Your task to perform on an android device: find snoozed emails in the gmail app Image 0: 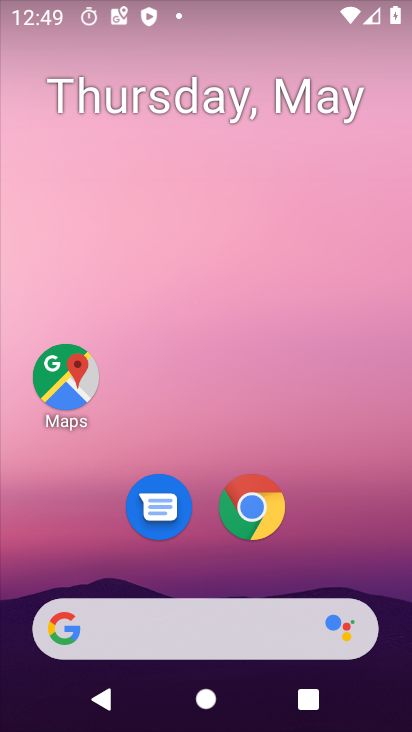
Step 0: drag from (270, 193) to (263, 102)
Your task to perform on an android device: find snoozed emails in the gmail app Image 1: 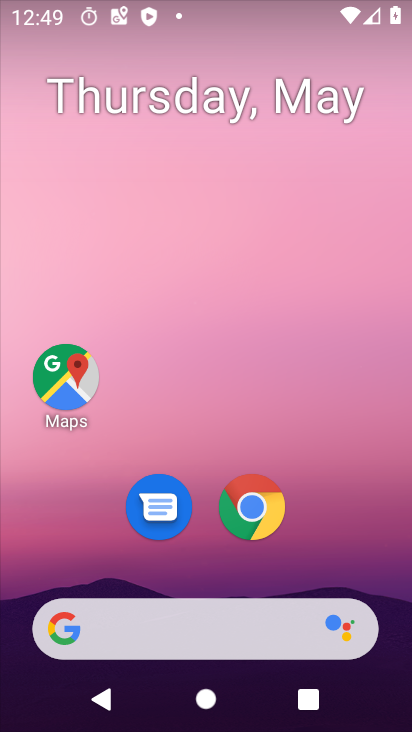
Step 1: drag from (199, 569) to (405, 514)
Your task to perform on an android device: find snoozed emails in the gmail app Image 2: 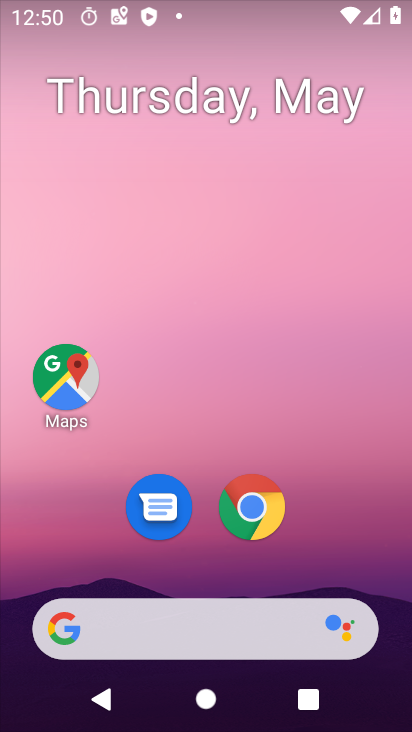
Step 2: click (346, 546)
Your task to perform on an android device: find snoozed emails in the gmail app Image 3: 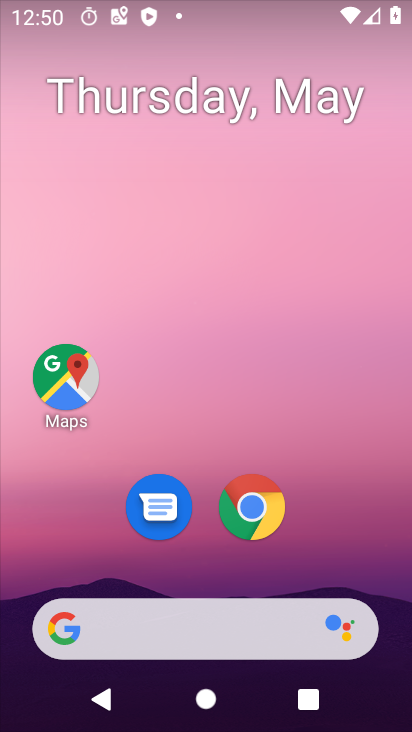
Step 3: drag from (289, 239) to (221, 2)
Your task to perform on an android device: find snoozed emails in the gmail app Image 4: 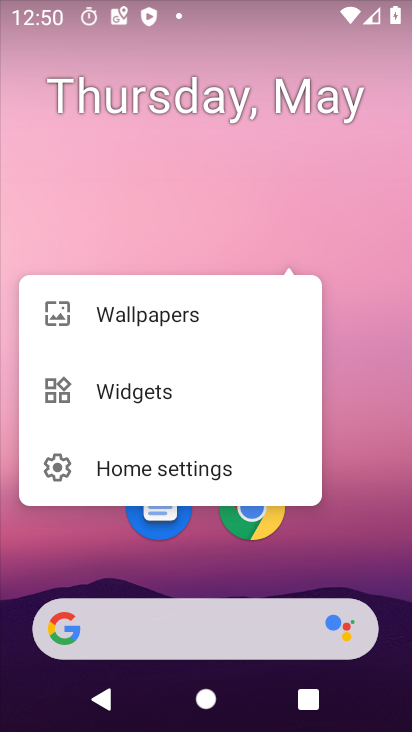
Step 4: click (165, 560)
Your task to perform on an android device: find snoozed emails in the gmail app Image 5: 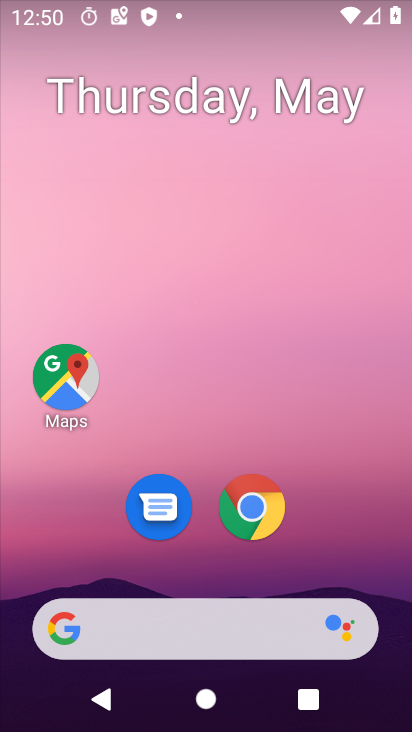
Step 5: drag from (189, 566) to (366, 18)
Your task to perform on an android device: find snoozed emails in the gmail app Image 6: 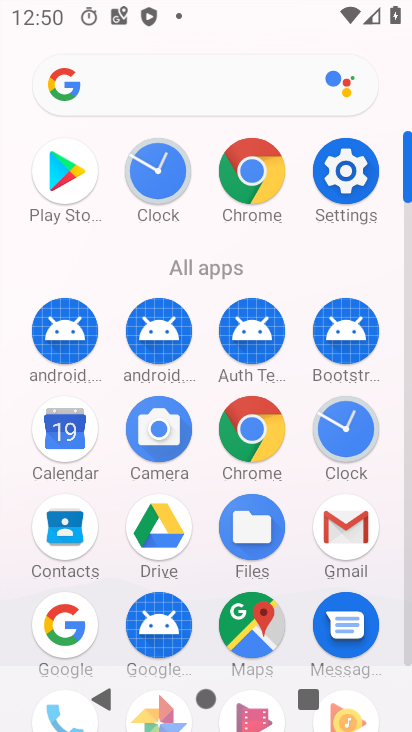
Step 6: click (349, 547)
Your task to perform on an android device: find snoozed emails in the gmail app Image 7: 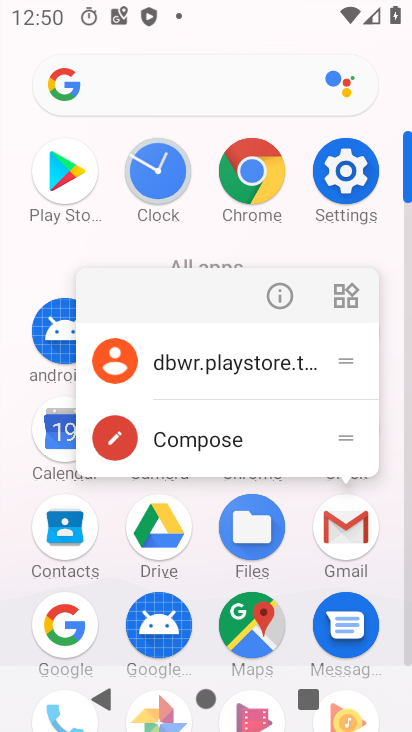
Step 7: click (359, 534)
Your task to perform on an android device: find snoozed emails in the gmail app Image 8: 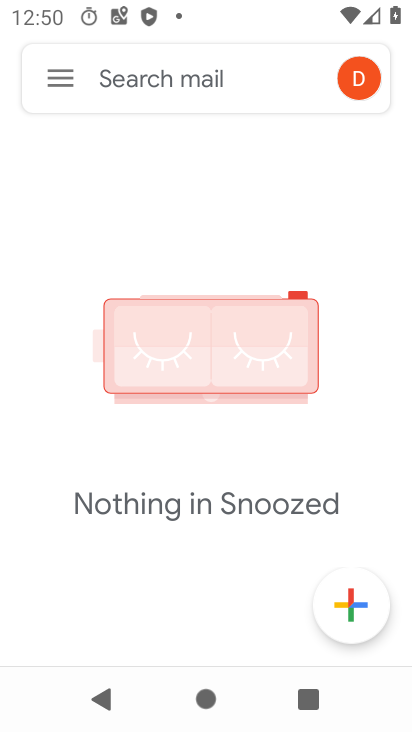
Step 8: task complete